Your task to perform on an android device: Clear the cart on costco.com. Add "usb-c to usb-b" to the cart on costco.com Image 0: 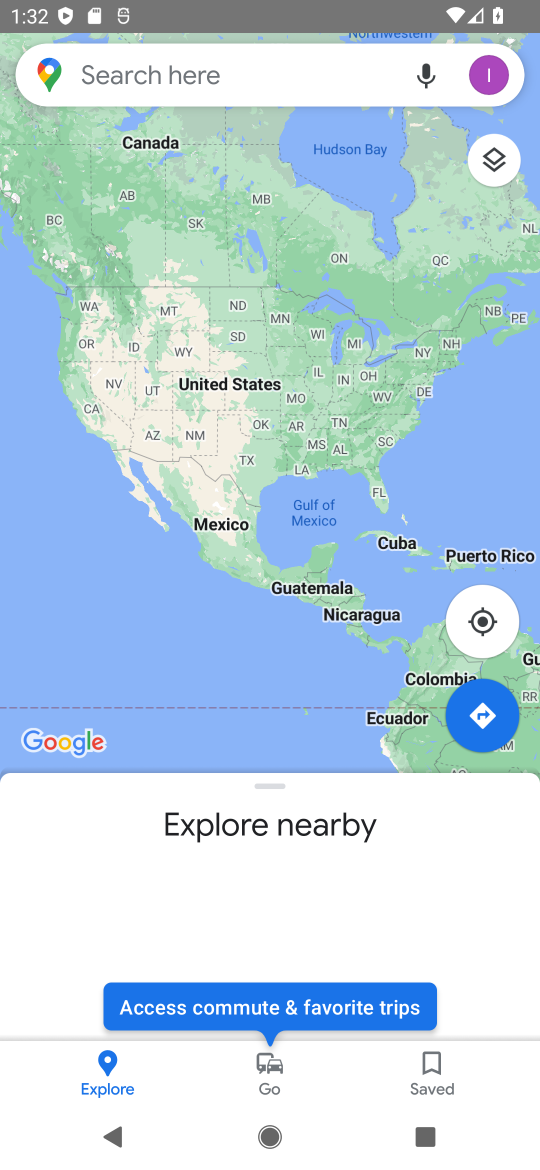
Step 0: press home button
Your task to perform on an android device: Clear the cart on costco.com. Add "usb-c to usb-b" to the cart on costco.com Image 1: 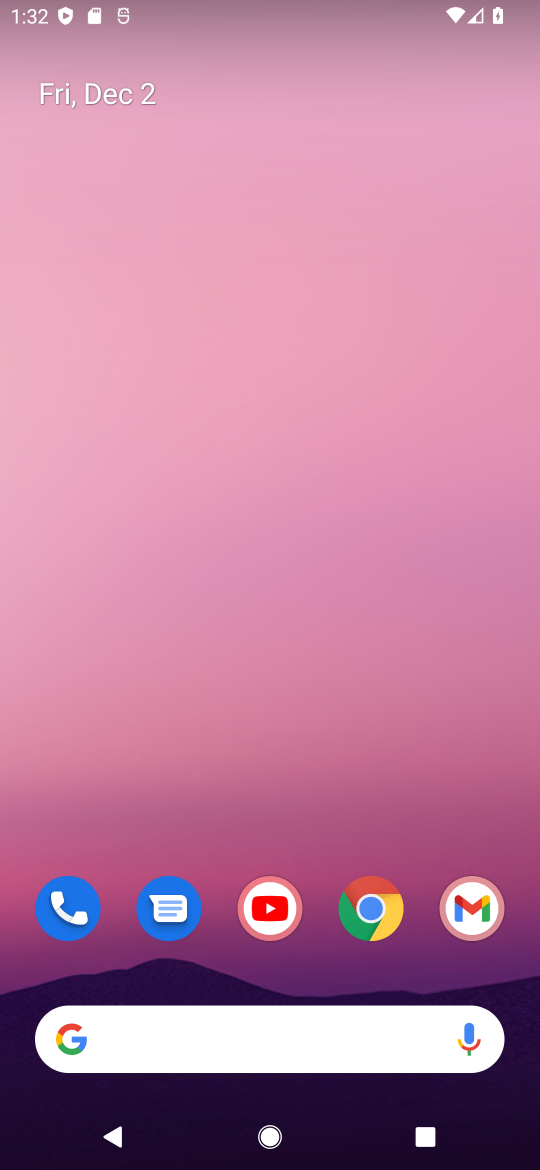
Step 1: drag from (226, 1023) to (199, 467)
Your task to perform on an android device: Clear the cart on costco.com. Add "usb-c to usb-b" to the cart on costco.com Image 2: 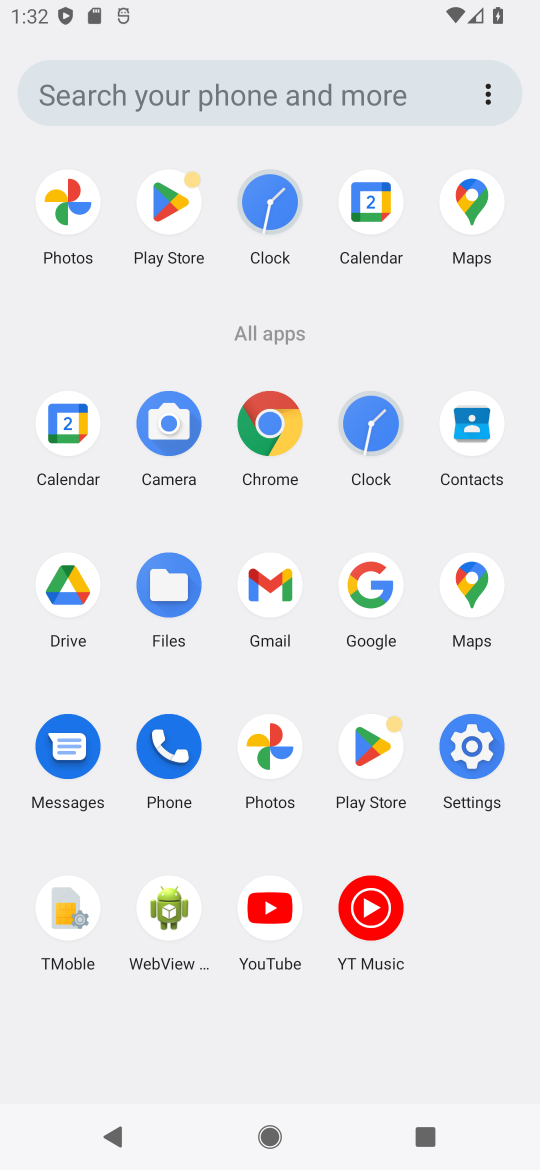
Step 2: click (381, 587)
Your task to perform on an android device: Clear the cart on costco.com. Add "usb-c to usb-b" to the cart on costco.com Image 3: 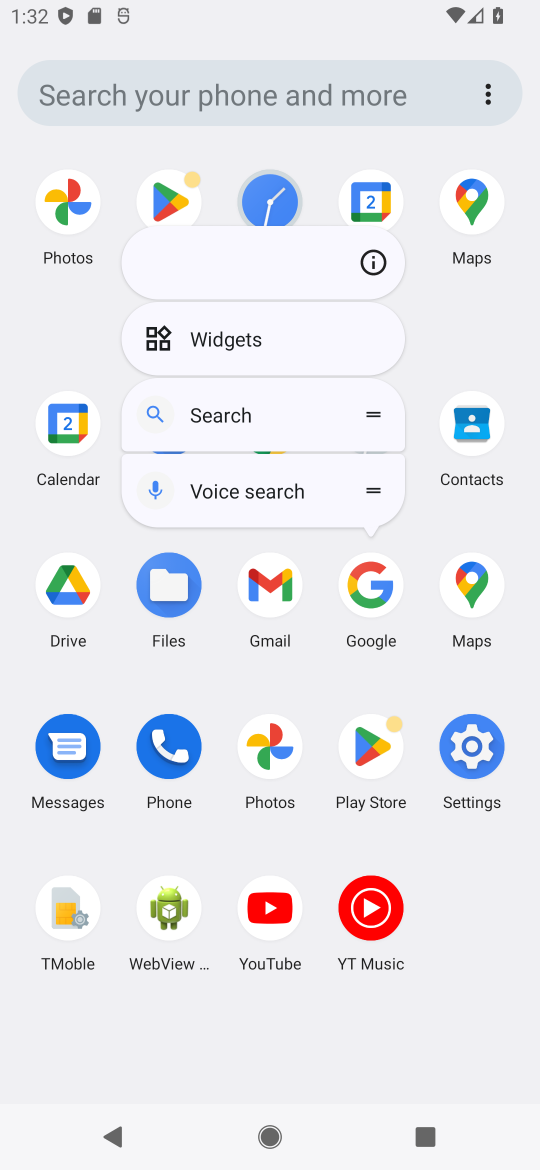
Step 3: click (364, 596)
Your task to perform on an android device: Clear the cart on costco.com. Add "usb-c to usb-b" to the cart on costco.com Image 4: 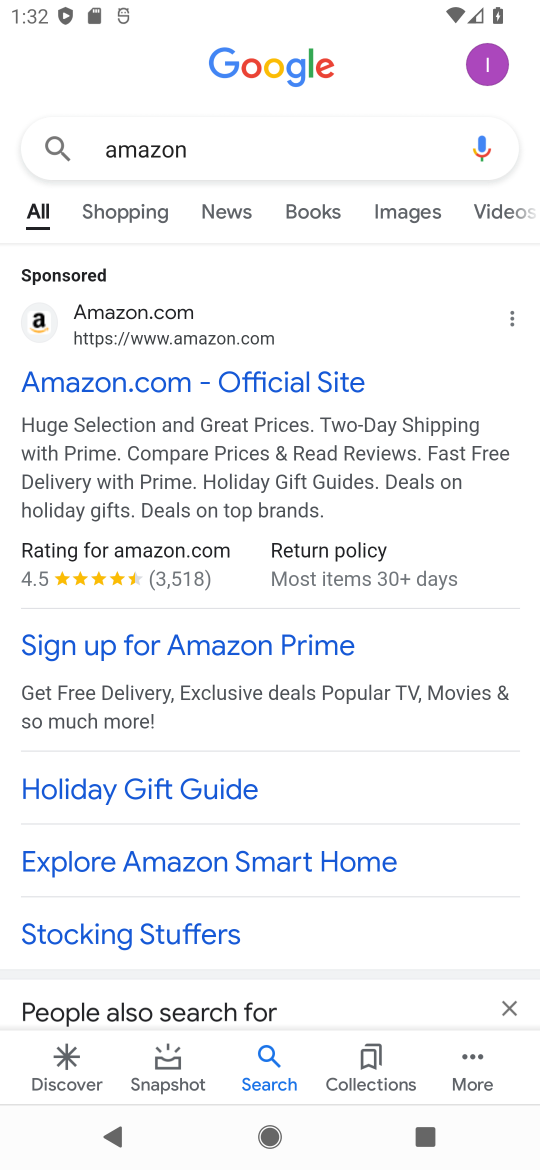
Step 4: click (133, 150)
Your task to perform on an android device: Clear the cart on costco.com. Add "usb-c to usb-b" to the cart on costco.com Image 5: 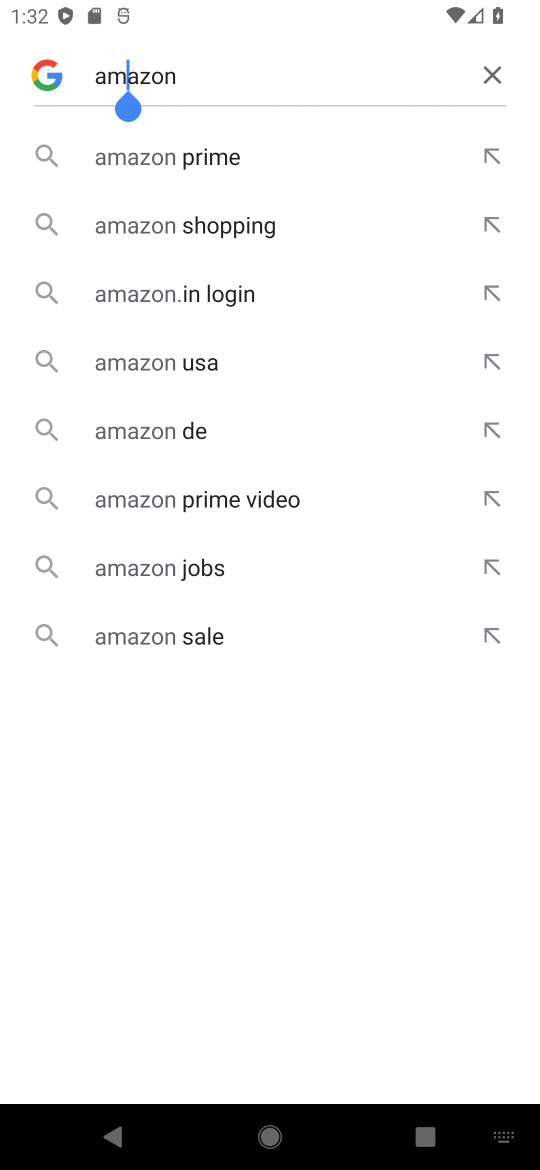
Step 5: click (503, 69)
Your task to perform on an android device: Clear the cart on costco.com. Add "usb-c to usb-b" to the cart on costco.com Image 6: 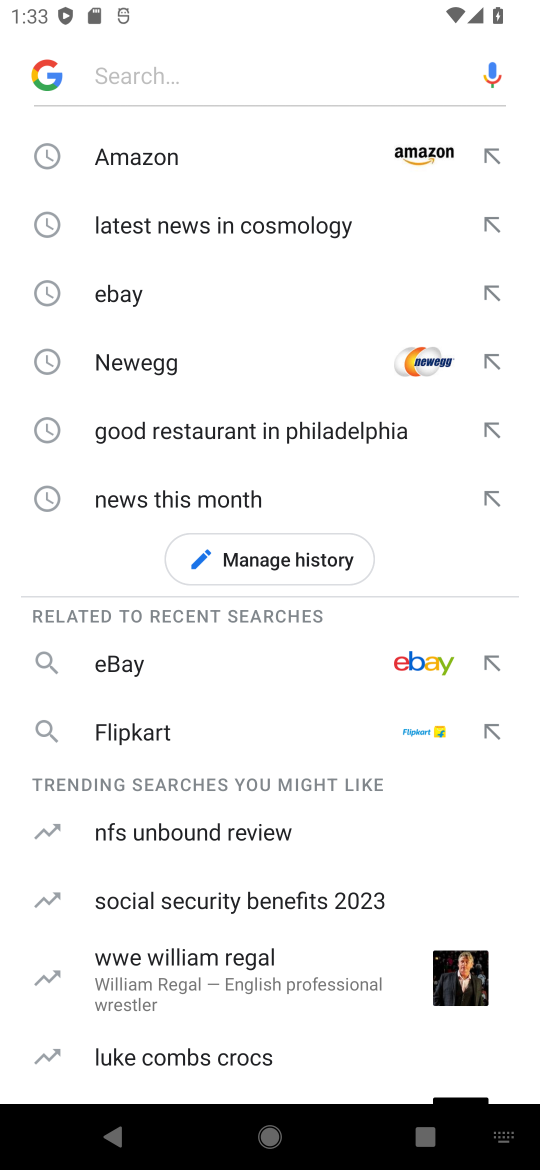
Step 6: type "costco.com"
Your task to perform on an android device: Clear the cart on costco.com. Add "usb-c to usb-b" to the cart on costco.com Image 7: 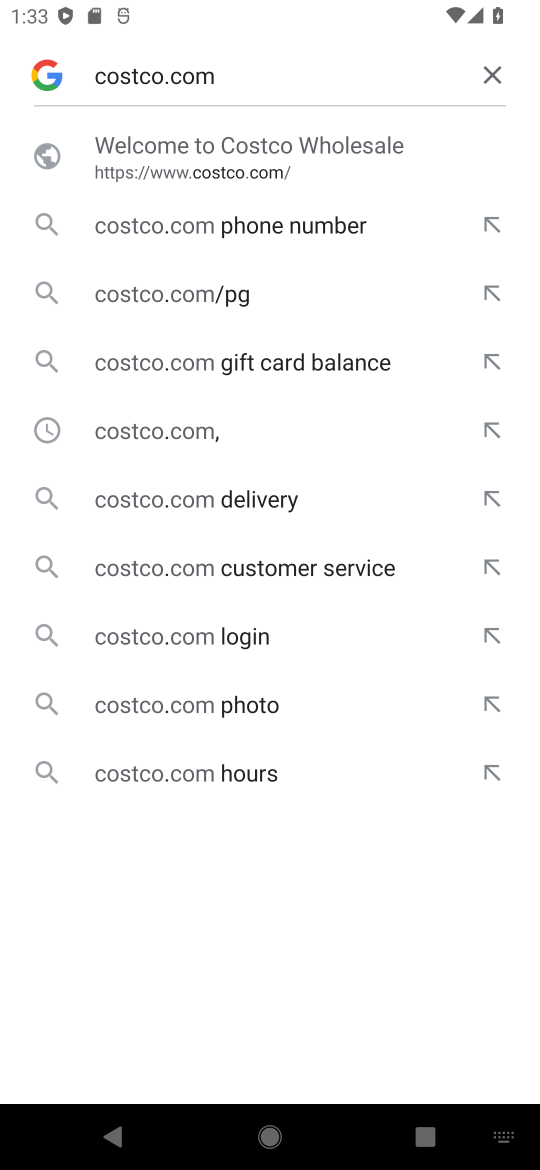
Step 7: click (171, 155)
Your task to perform on an android device: Clear the cart on costco.com. Add "usb-c to usb-b" to the cart on costco.com Image 8: 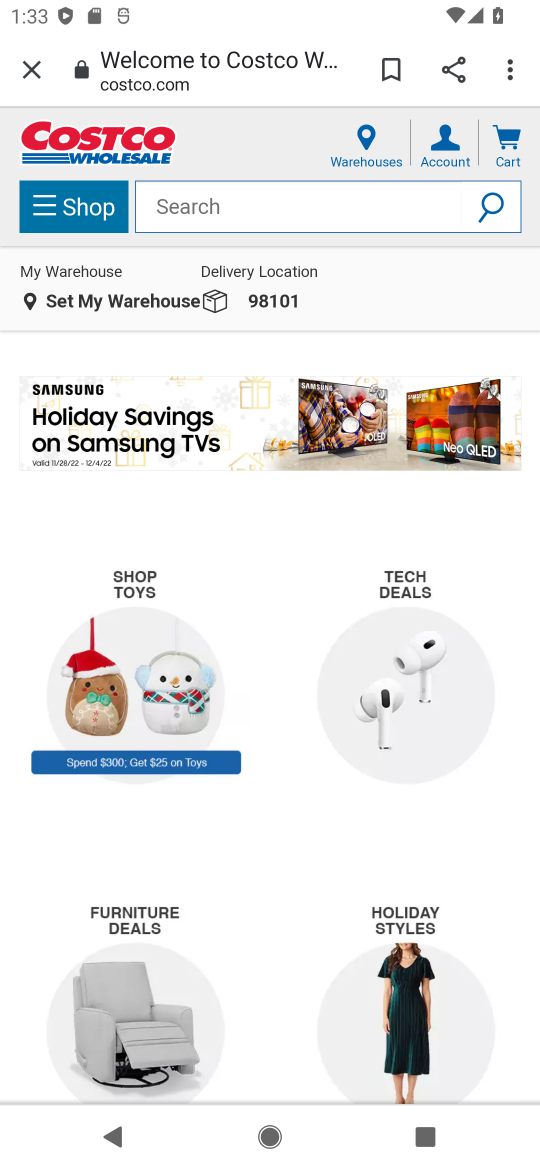
Step 8: click (201, 212)
Your task to perform on an android device: Clear the cart on costco.com. Add "usb-c to usb-b" to the cart on costco.com Image 9: 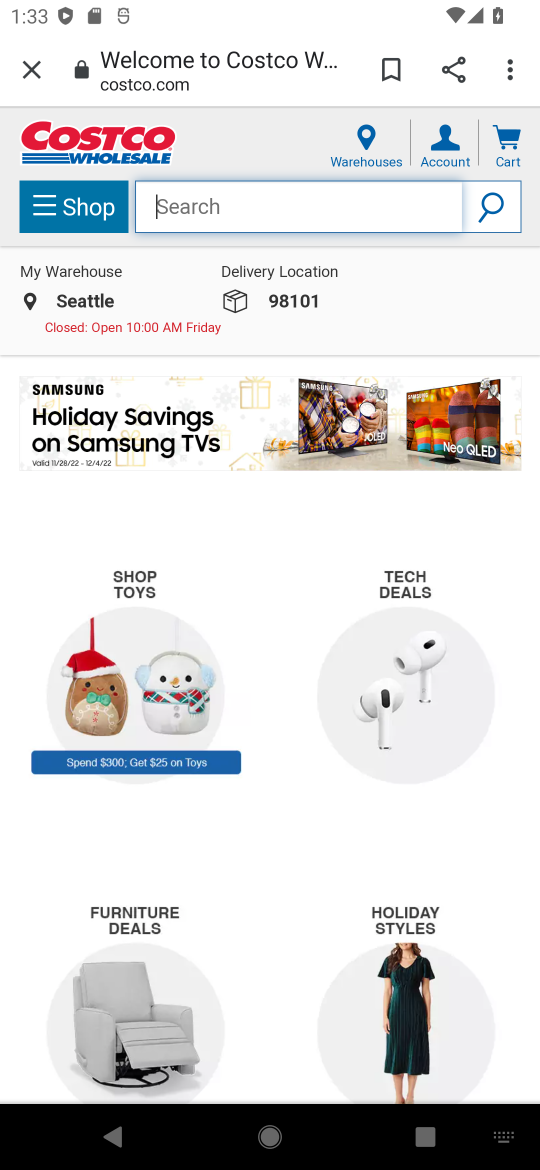
Step 9: type "usb-c to usb-b"
Your task to perform on an android device: Clear the cart on costco.com. Add "usb-c to usb-b" to the cart on costco.com Image 10: 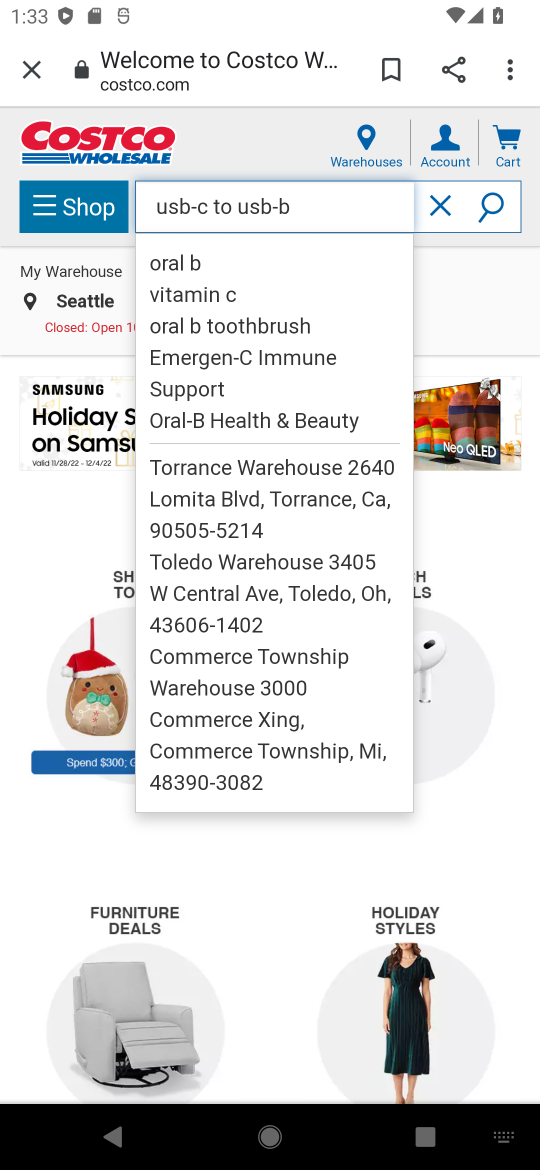
Step 10: click (507, 199)
Your task to perform on an android device: Clear the cart on costco.com. Add "usb-c to usb-b" to the cart on costco.com Image 11: 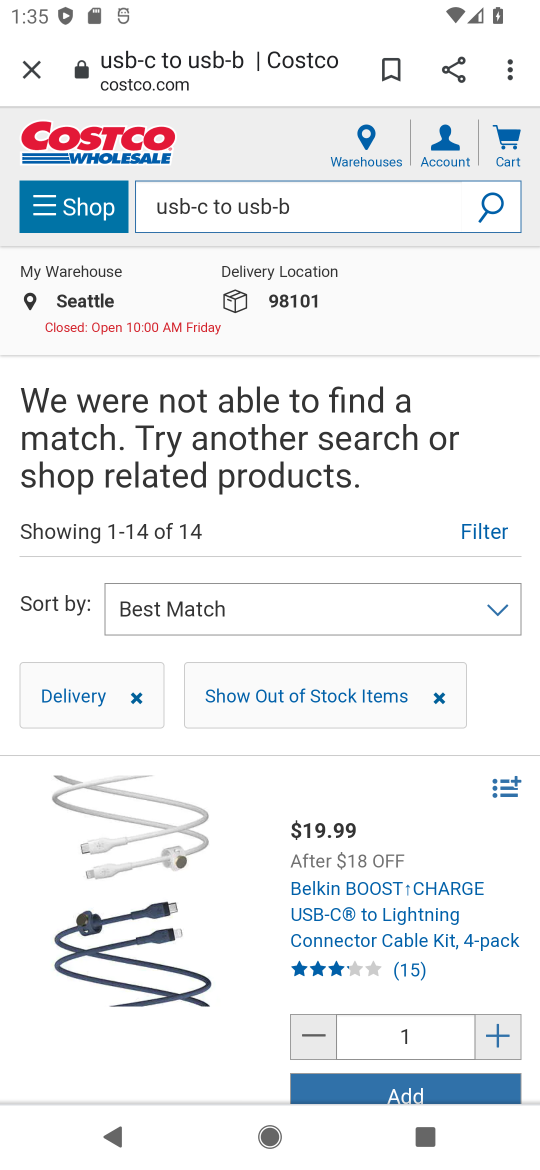
Step 11: drag from (212, 812) to (182, 304)
Your task to perform on an android device: Clear the cart on costco.com. Add "usb-c to usb-b" to the cart on costco.com Image 12: 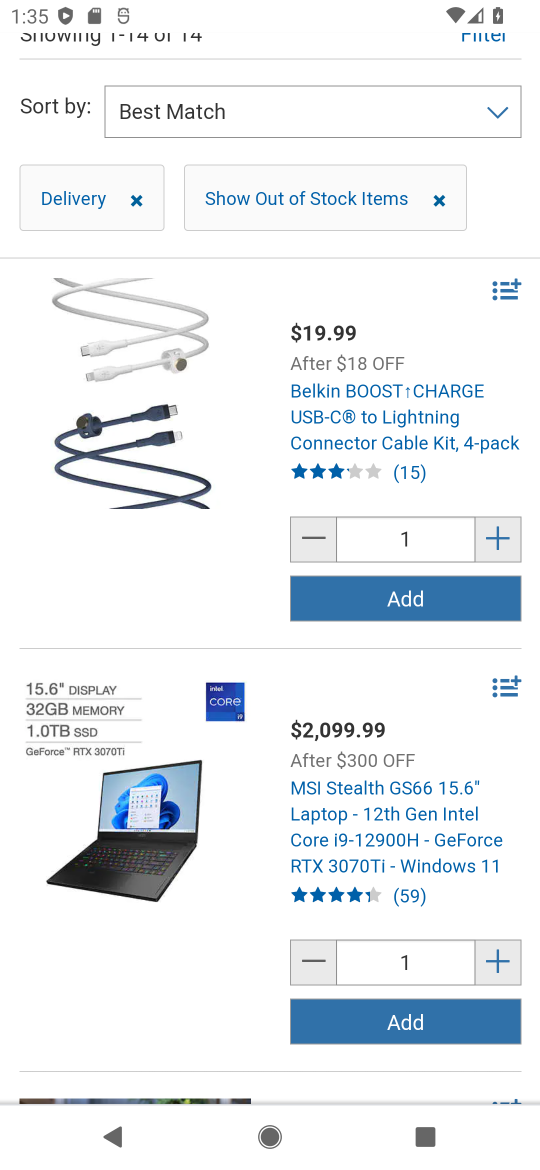
Step 12: click (401, 597)
Your task to perform on an android device: Clear the cart on costco.com. Add "usb-c to usb-b" to the cart on costco.com Image 13: 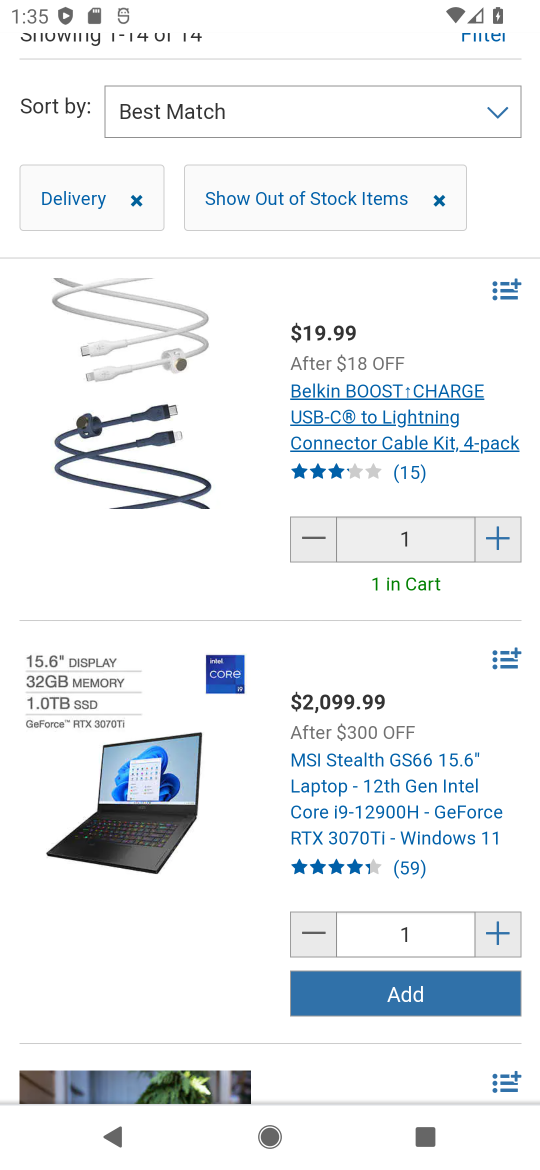
Step 13: task complete